Your task to perform on an android device: change the clock display to digital Image 0: 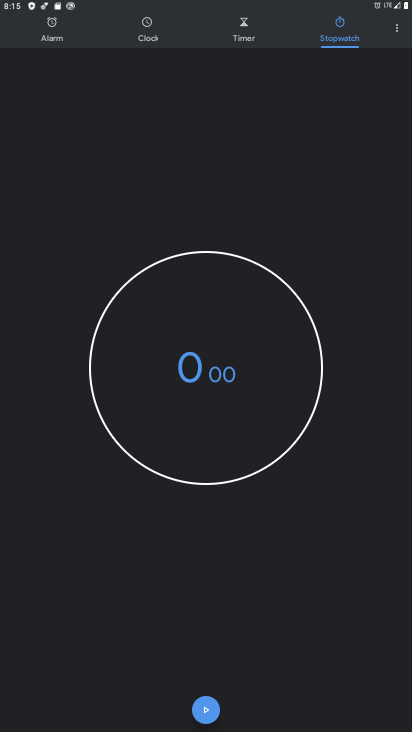
Step 0: press home button
Your task to perform on an android device: change the clock display to digital Image 1: 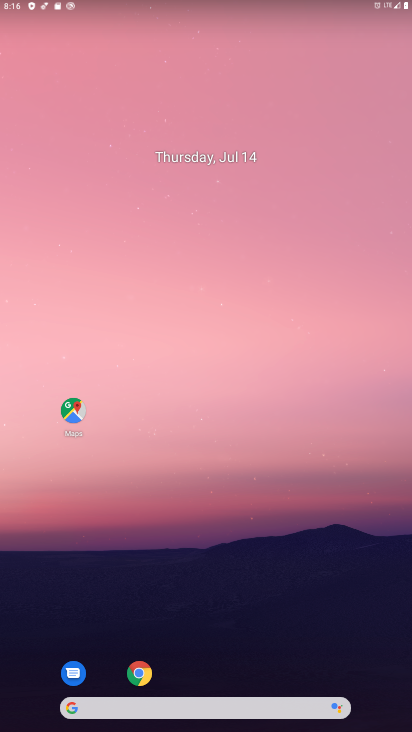
Step 1: drag from (193, 705) to (250, 202)
Your task to perform on an android device: change the clock display to digital Image 2: 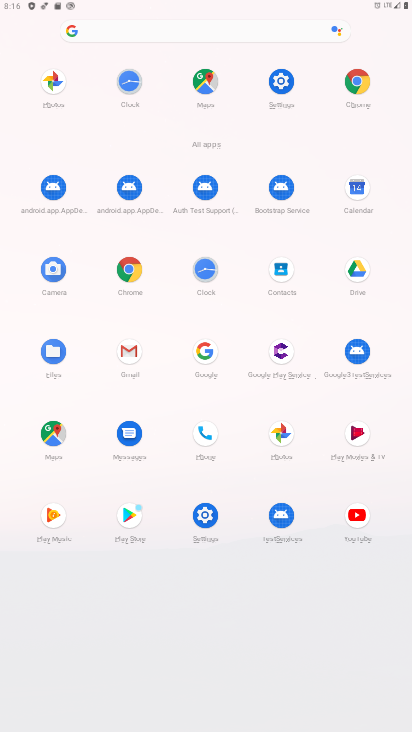
Step 2: click (203, 268)
Your task to perform on an android device: change the clock display to digital Image 3: 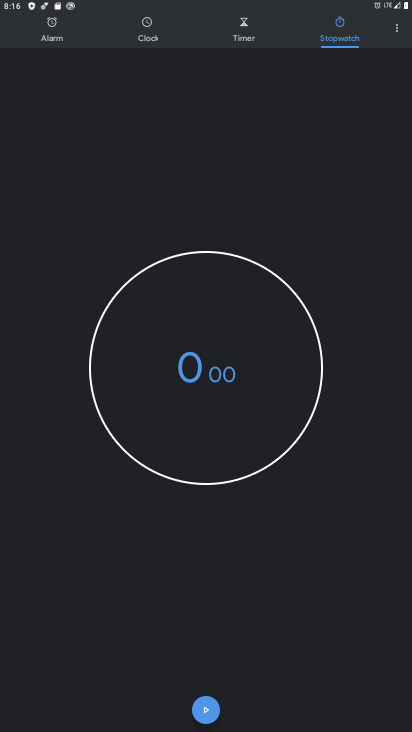
Step 3: click (400, 28)
Your task to perform on an android device: change the clock display to digital Image 4: 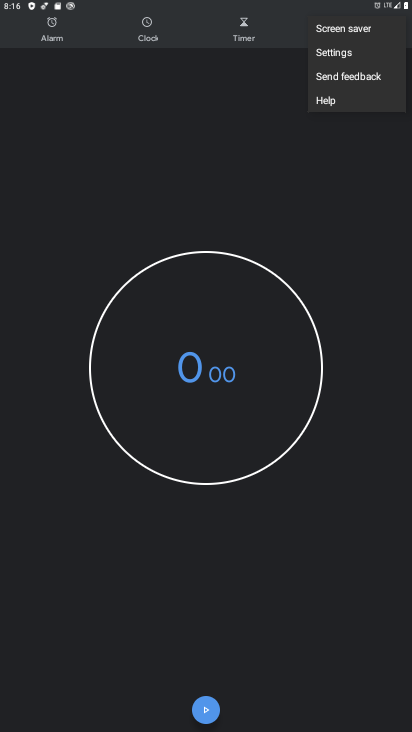
Step 4: click (342, 60)
Your task to perform on an android device: change the clock display to digital Image 5: 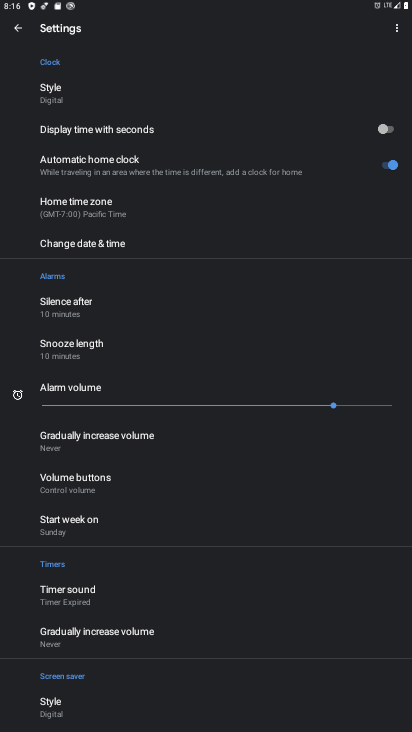
Step 5: click (64, 96)
Your task to perform on an android device: change the clock display to digital Image 6: 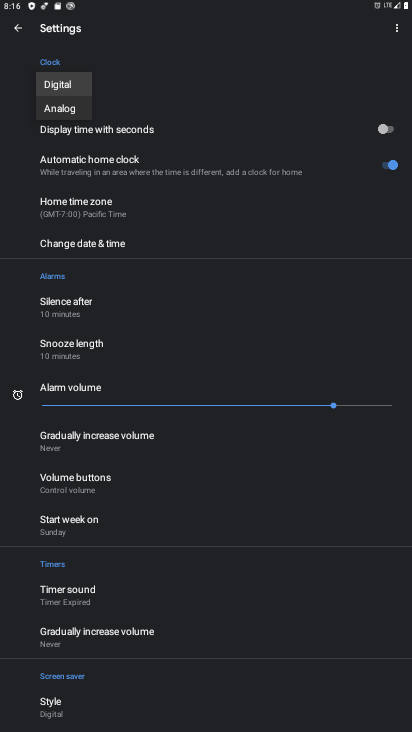
Step 6: click (79, 86)
Your task to perform on an android device: change the clock display to digital Image 7: 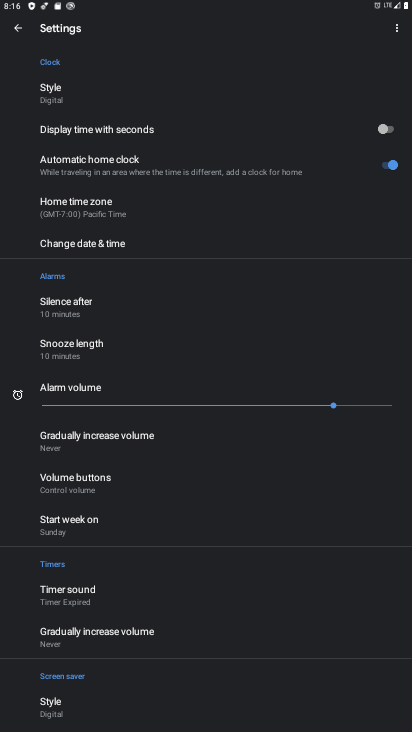
Step 7: task complete